Your task to perform on an android device: change the clock style Image 0: 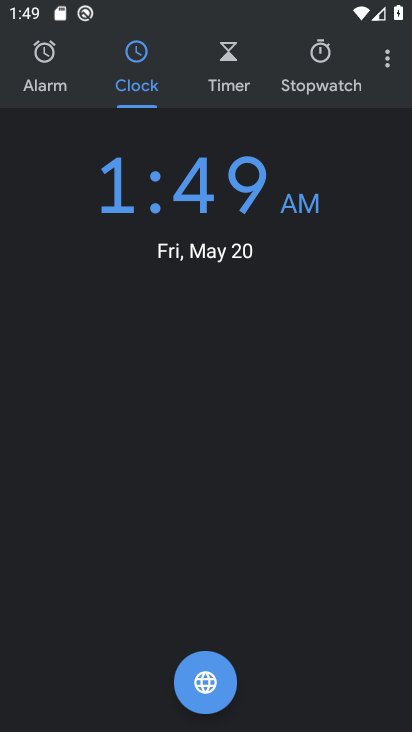
Step 0: click (389, 54)
Your task to perform on an android device: change the clock style Image 1: 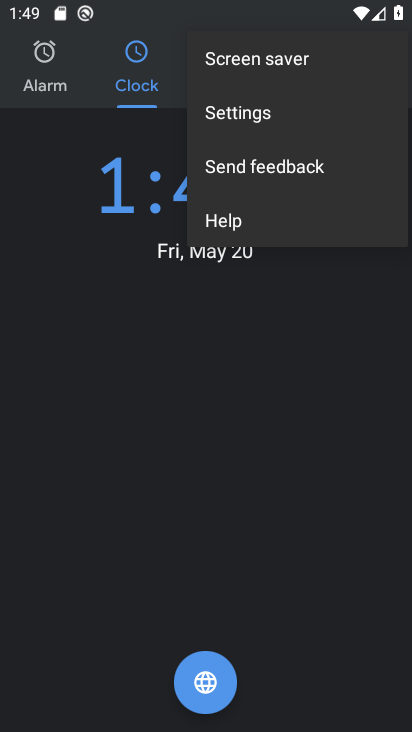
Step 1: click (278, 100)
Your task to perform on an android device: change the clock style Image 2: 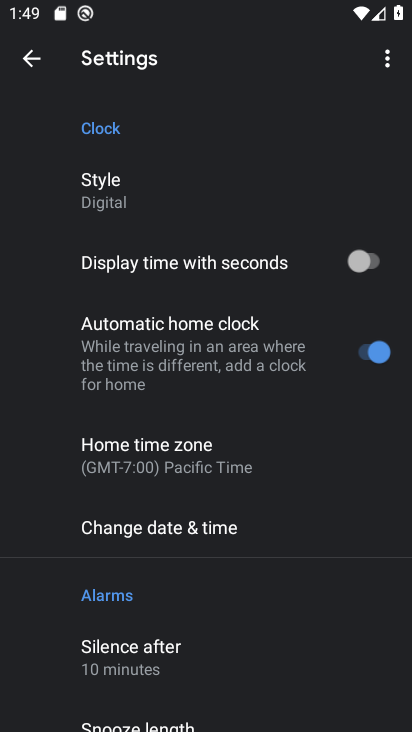
Step 2: click (143, 203)
Your task to perform on an android device: change the clock style Image 3: 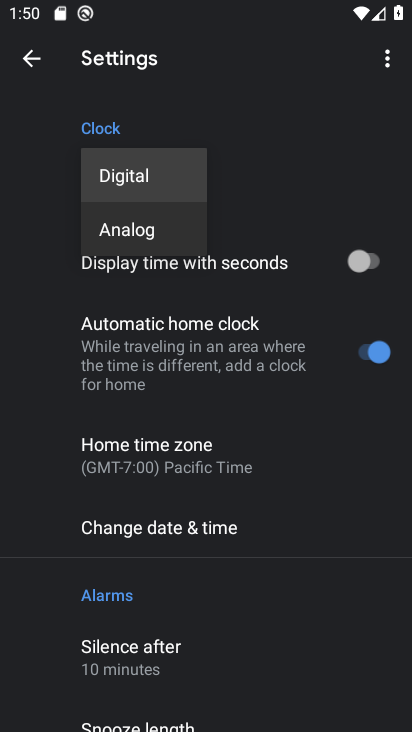
Step 3: click (178, 232)
Your task to perform on an android device: change the clock style Image 4: 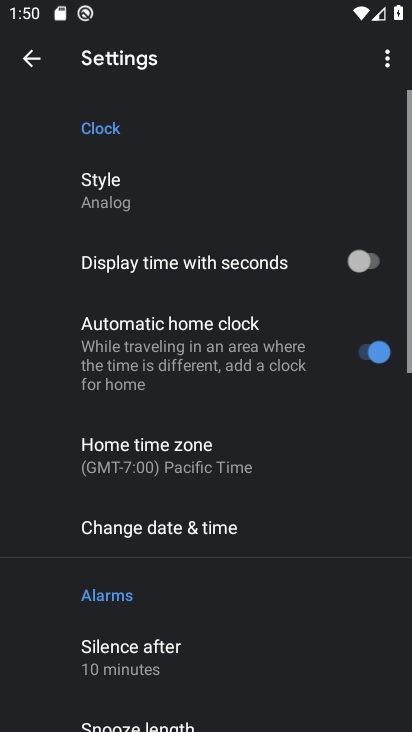
Step 4: task complete